Your task to perform on an android device: When is my next appointment? Image 0: 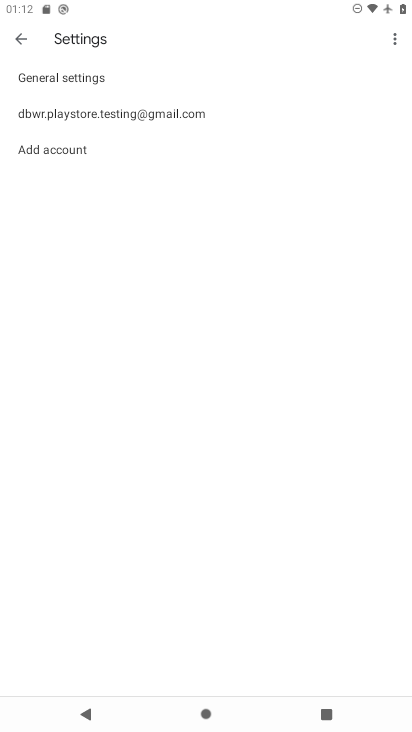
Step 0: press home button
Your task to perform on an android device: When is my next appointment? Image 1: 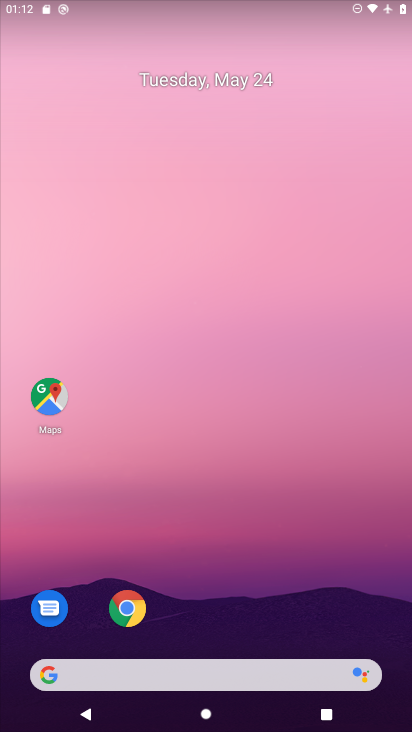
Step 1: drag from (262, 600) to (288, 83)
Your task to perform on an android device: When is my next appointment? Image 2: 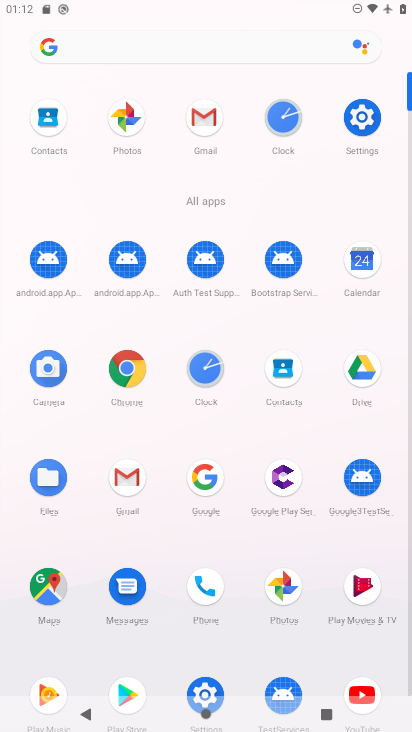
Step 2: click (58, 128)
Your task to perform on an android device: When is my next appointment? Image 3: 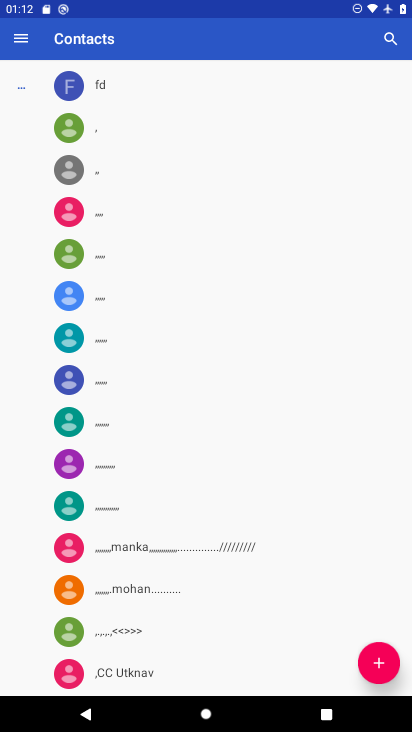
Step 3: press home button
Your task to perform on an android device: When is my next appointment? Image 4: 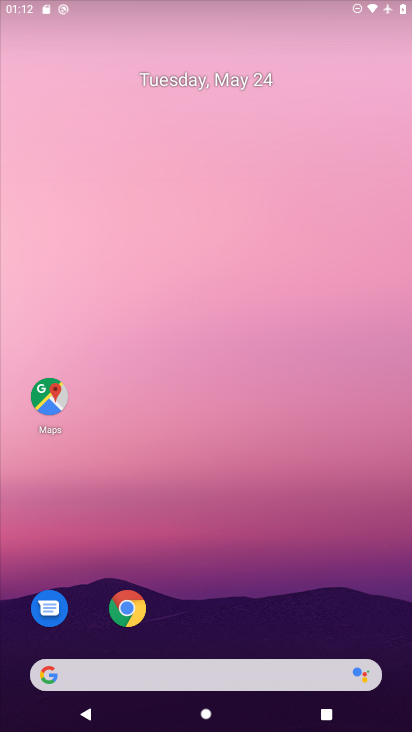
Step 4: drag from (326, 570) to (253, 260)
Your task to perform on an android device: When is my next appointment? Image 5: 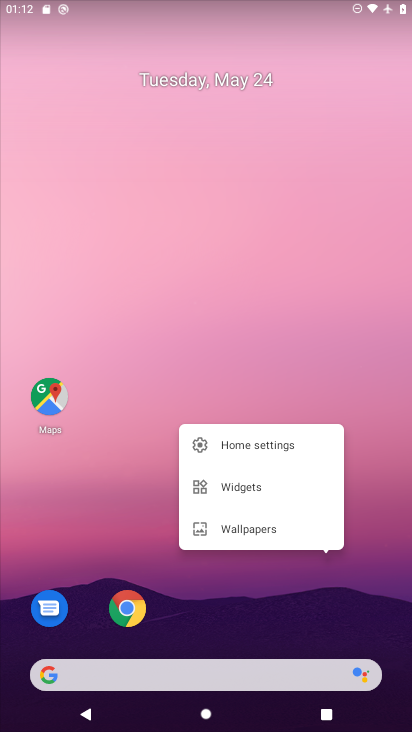
Step 5: click (314, 311)
Your task to perform on an android device: When is my next appointment? Image 6: 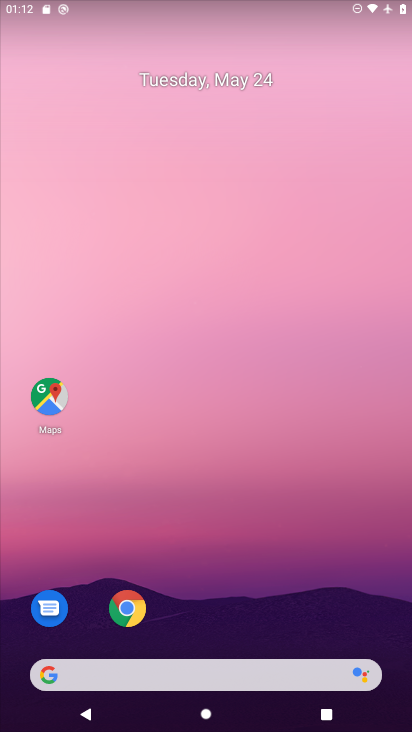
Step 6: drag from (287, 638) to (305, 182)
Your task to perform on an android device: When is my next appointment? Image 7: 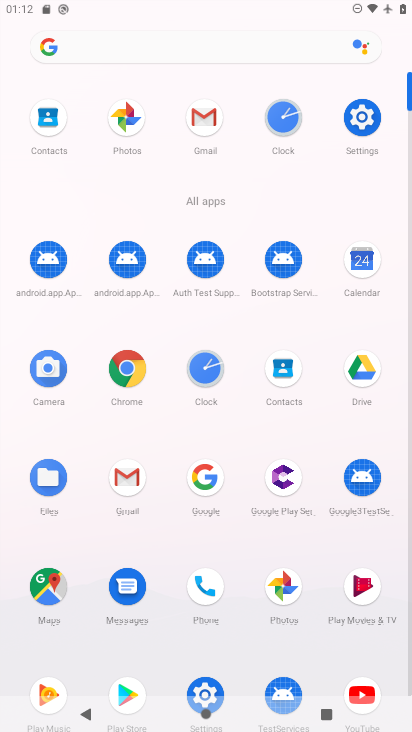
Step 7: click (351, 292)
Your task to perform on an android device: When is my next appointment? Image 8: 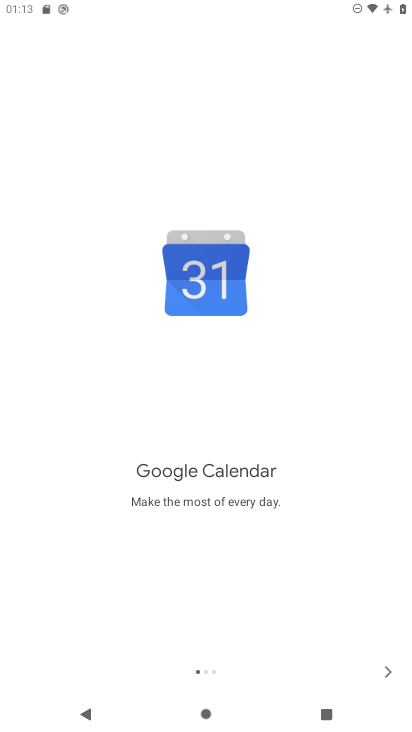
Step 8: task complete